Your task to perform on an android device: Play the last video I watched on Youtube Image 0: 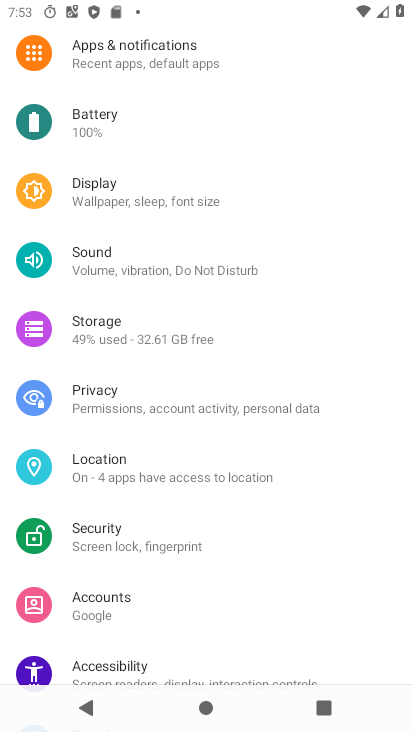
Step 0: press home button
Your task to perform on an android device: Play the last video I watched on Youtube Image 1: 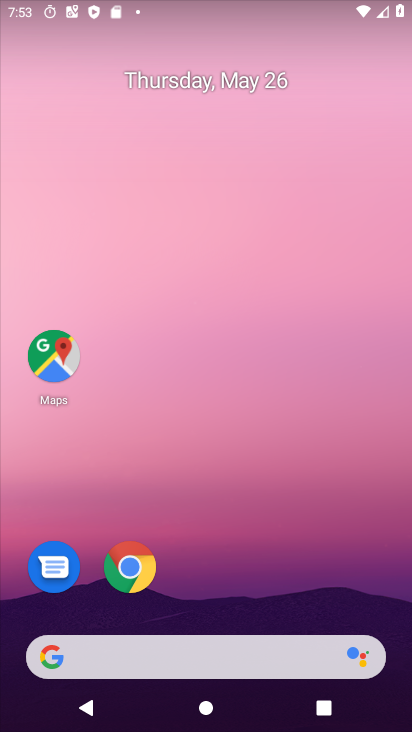
Step 1: drag from (159, 650) to (342, 74)
Your task to perform on an android device: Play the last video I watched on Youtube Image 2: 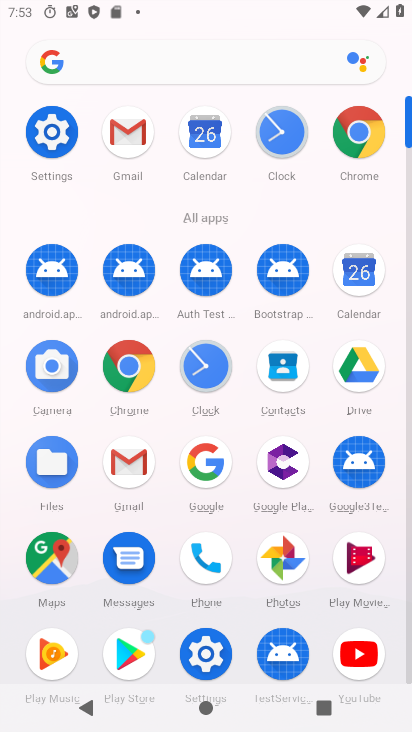
Step 2: click (362, 651)
Your task to perform on an android device: Play the last video I watched on Youtube Image 3: 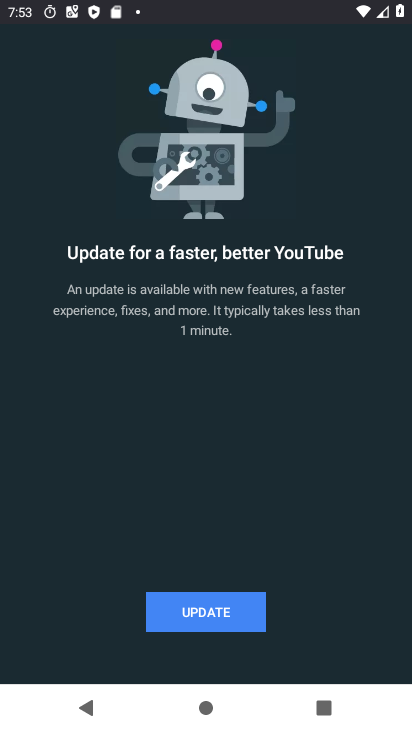
Step 3: click (218, 620)
Your task to perform on an android device: Play the last video I watched on Youtube Image 4: 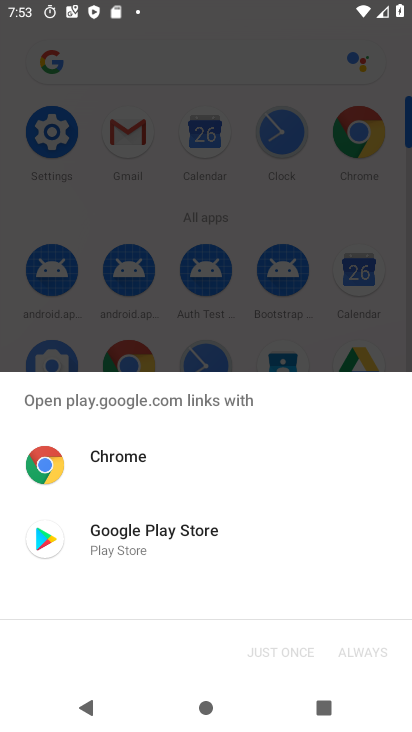
Step 4: click (99, 533)
Your task to perform on an android device: Play the last video I watched on Youtube Image 5: 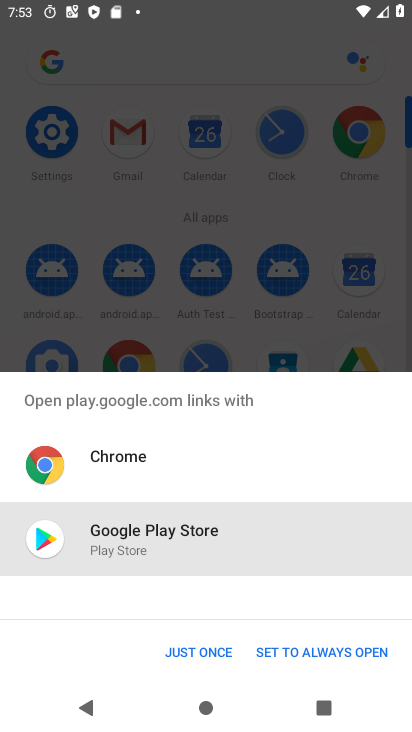
Step 5: click (209, 649)
Your task to perform on an android device: Play the last video I watched on Youtube Image 6: 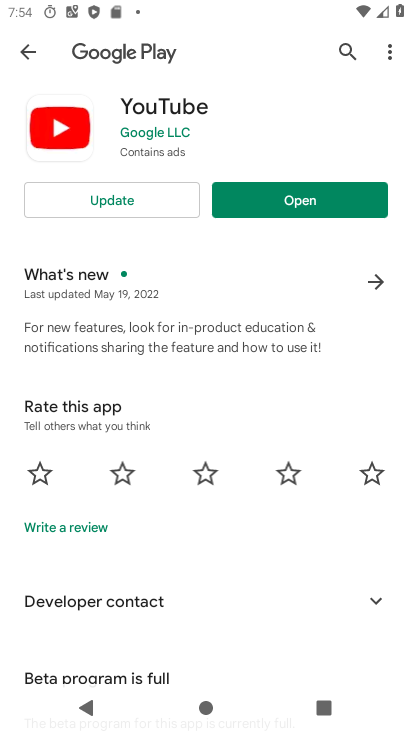
Step 6: click (153, 194)
Your task to perform on an android device: Play the last video I watched on Youtube Image 7: 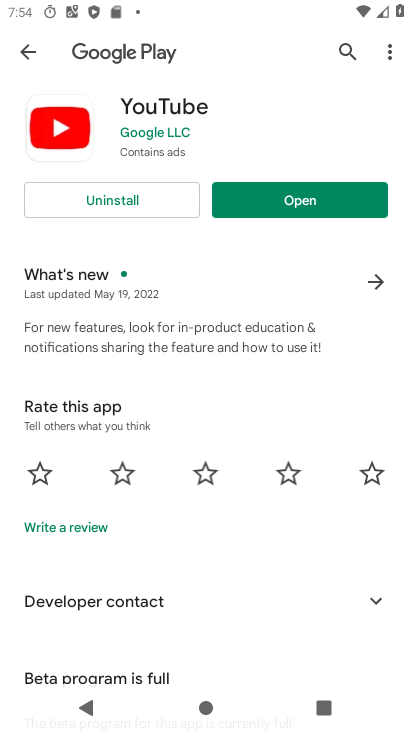
Step 7: click (307, 206)
Your task to perform on an android device: Play the last video I watched on Youtube Image 8: 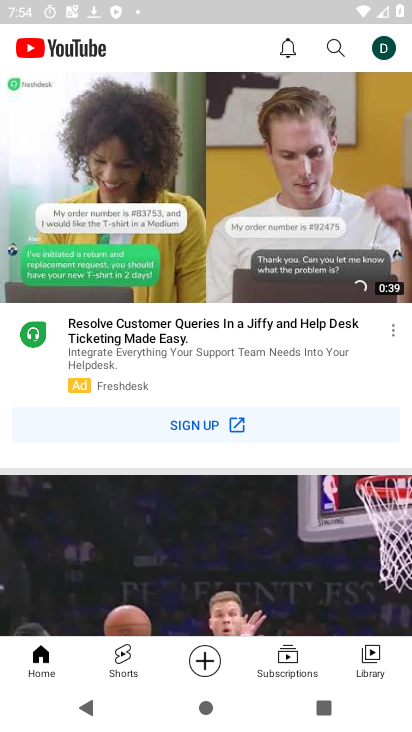
Step 8: click (375, 658)
Your task to perform on an android device: Play the last video I watched on Youtube Image 9: 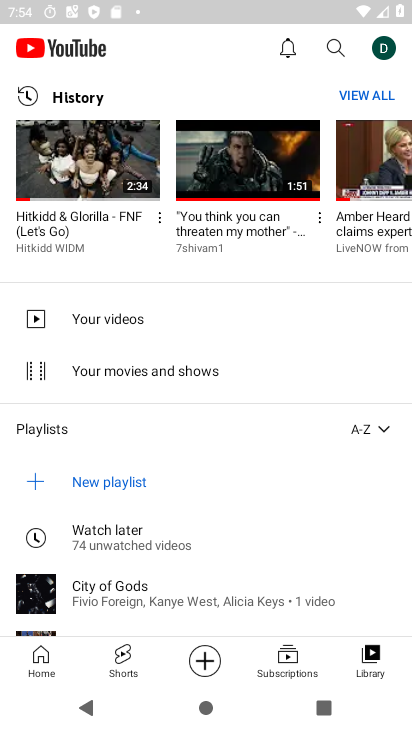
Step 9: click (72, 157)
Your task to perform on an android device: Play the last video I watched on Youtube Image 10: 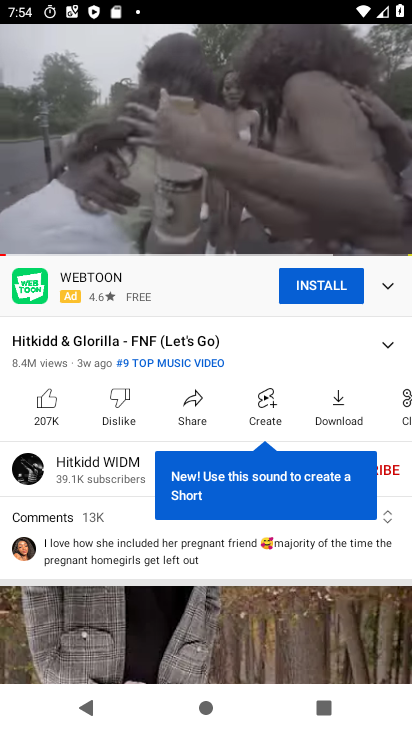
Step 10: click (234, 109)
Your task to perform on an android device: Play the last video I watched on Youtube Image 11: 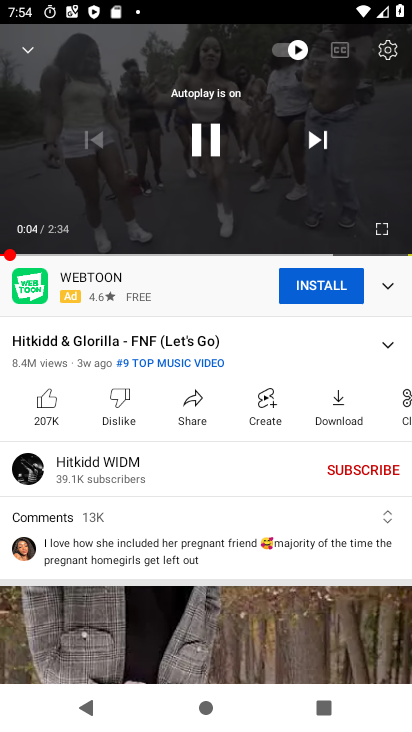
Step 11: click (212, 132)
Your task to perform on an android device: Play the last video I watched on Youtube Image 12: 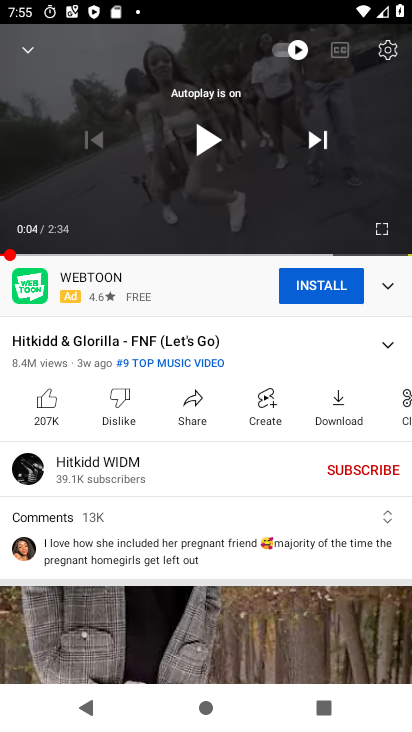
Step 12: task complete